Your task to perform on an android device: Open Youtube and go to "Your channel" Image 0: 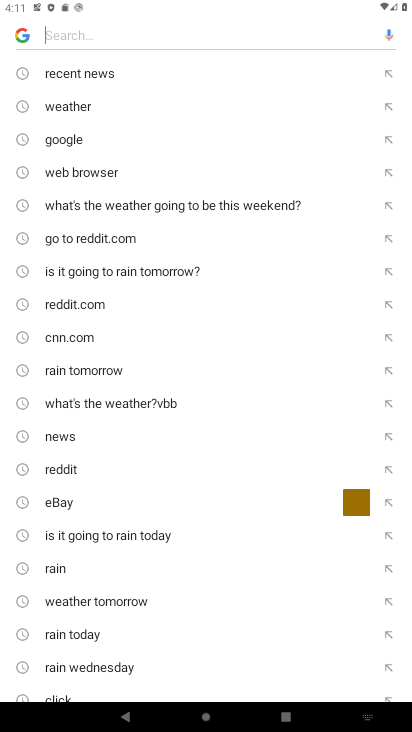
Step 0: press home button
Your task to perform on an android device: Open Youtube and go to "Your channel" Image 1: 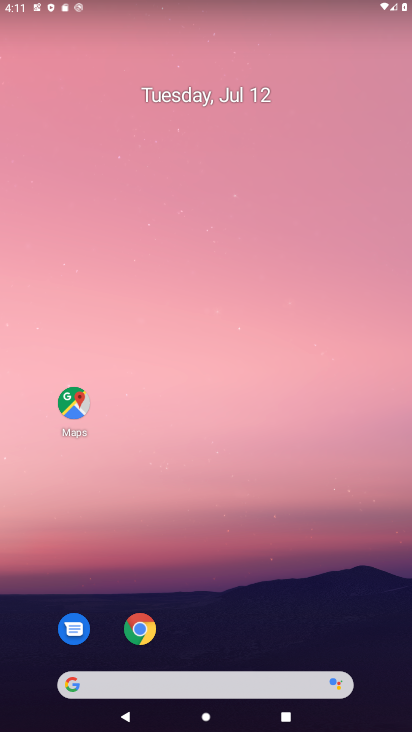
Step 1: drag from (238, 655) to (216, 121)
Your task to perform on an android device: Open Youtube and go to "Your channel" Image 2: 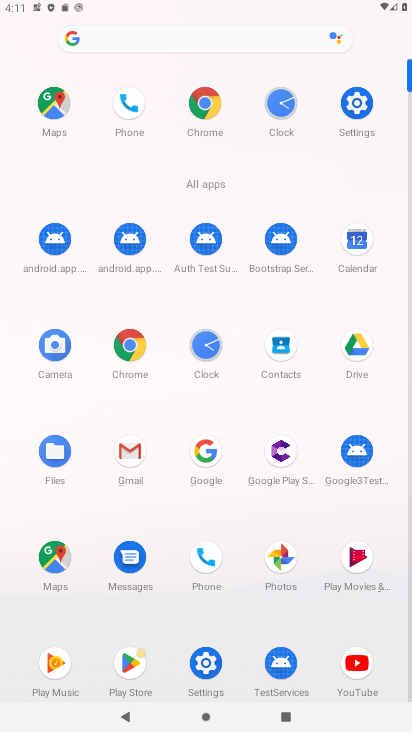
Step 2: click (357, 664)
Your task to perform on an android device: Open Youtube and go to "Your channel" Image 3: 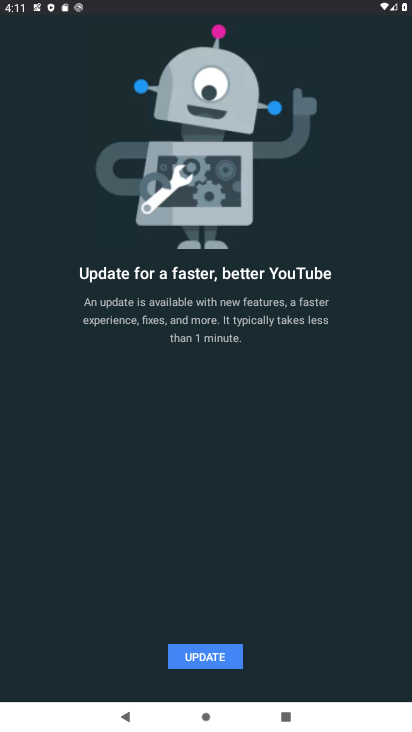
Step 3: click (198, 653)
Your task to perform on an android device: Open Youtube and go to "Your channel" Image 4: 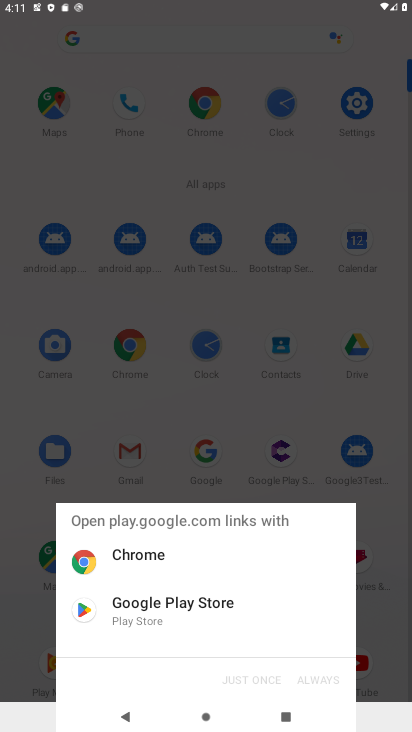
Step 4: click (155, 606)
Your task to perform on an android device: Open Youtube and go to "Your channel" Image 5: 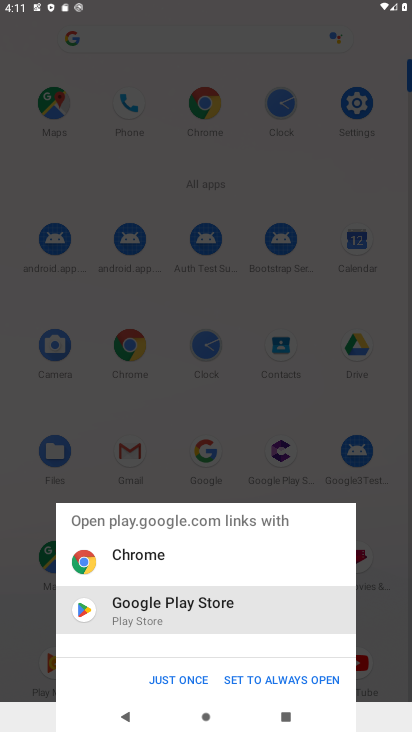
Step 5: click (166, 684)
Your task to perform on an android device: Open Youtube and go to "Your channel" Image 6: 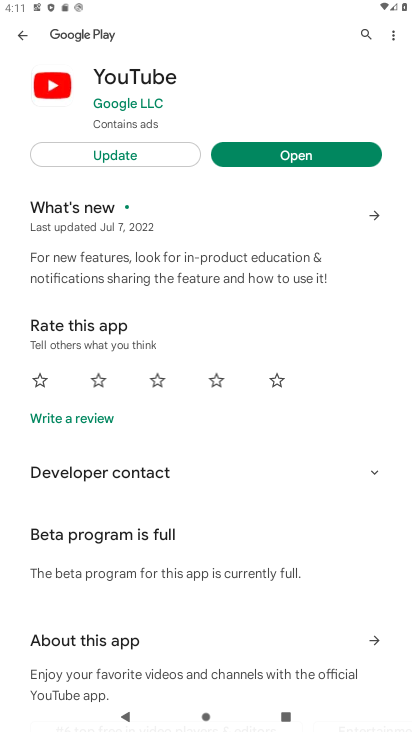
Step 6: click (137, 151)
Your task to perform on an android device: Open Youtube and go to "Your channel" Image 7: 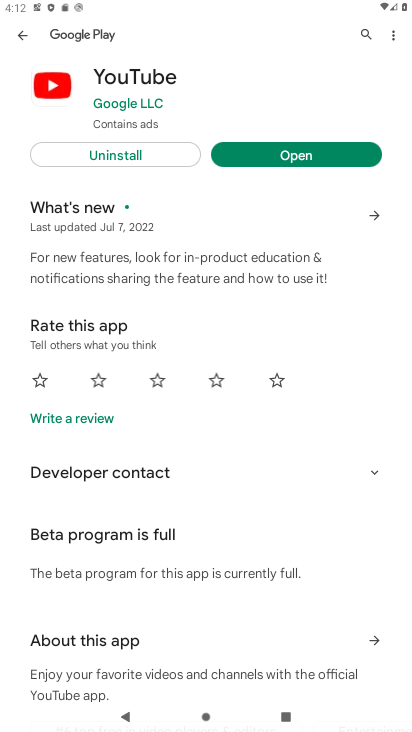
Step 7: click (238, 160)
Your task to perform on an android device: Open Youtube and go to "Your channel" Image 8: 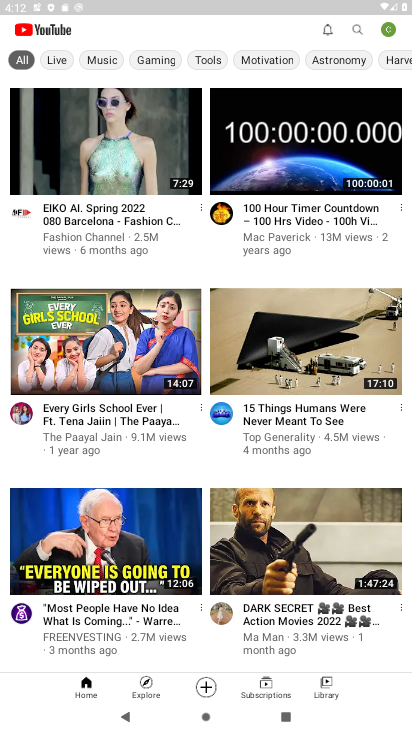
Step 8: click (83, 687)
Your task to perform on an android device: Open Youtube and go to "Your channel" Image 9: 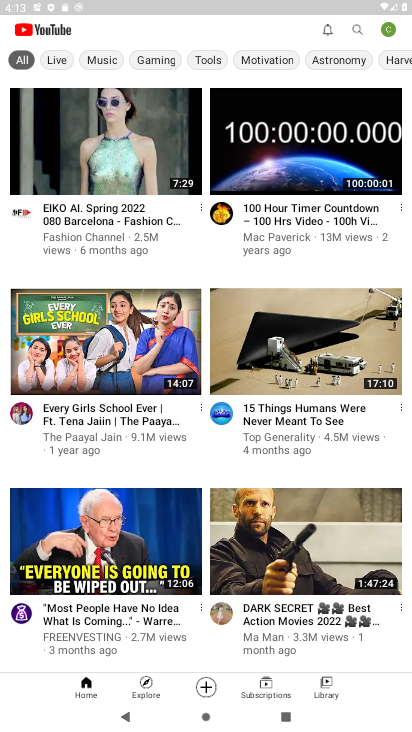
Step 9: click (392, 24)
Your task to perform on an android device: Open Youtube and go to "Your channel" Image 10: 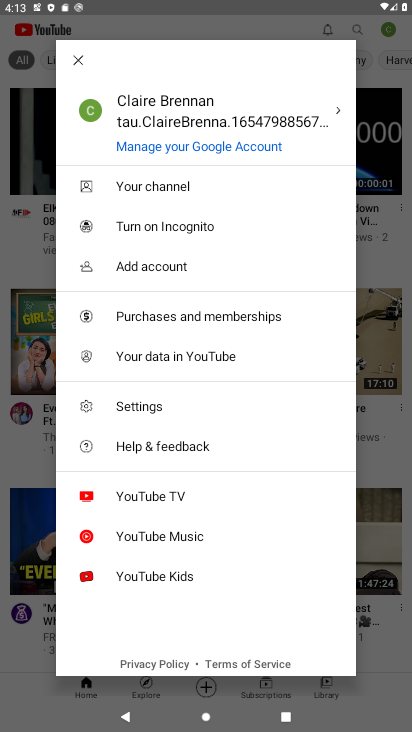
Step 10: click (149, 185)
Your task to perform on an android device: Open Youtube and go to "Your channel" Image 11: 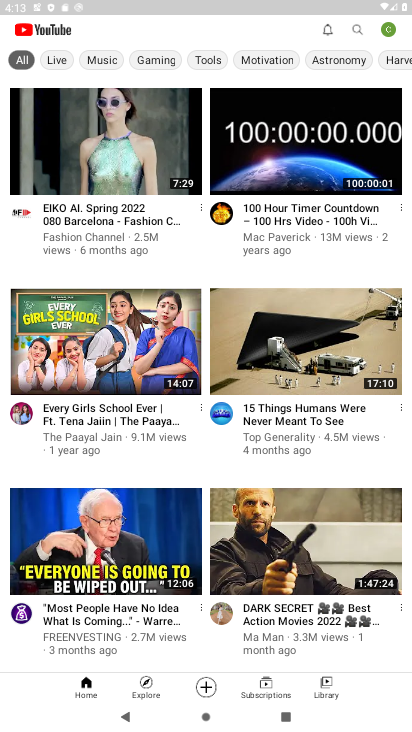
Step 11: task complete